Your task to perform on an android device: What's the weather today? Image 0: 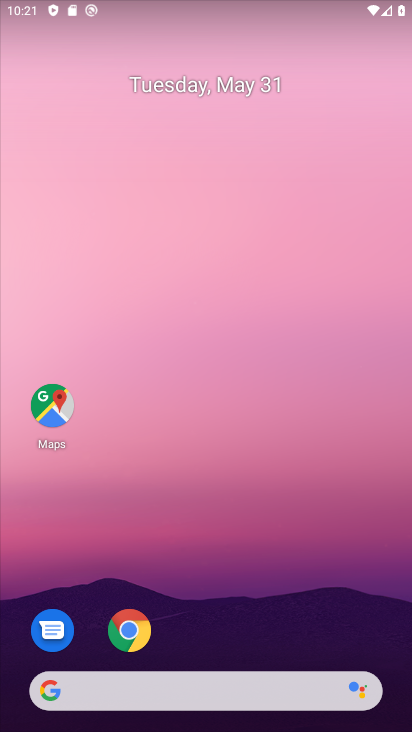
Step 0: drag from (284, 612) to (279, 130)
Your task to perform on an android device: What's the weather today? Image 1: 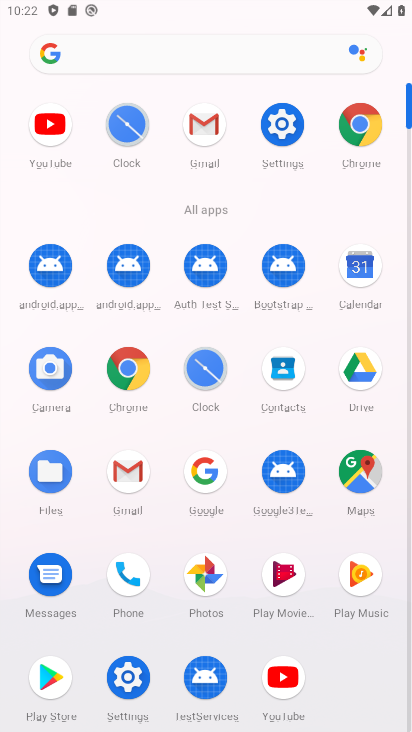
Step 1: click (124, 374)
Your task to perform on an android device: What's the weather today? Image 2: 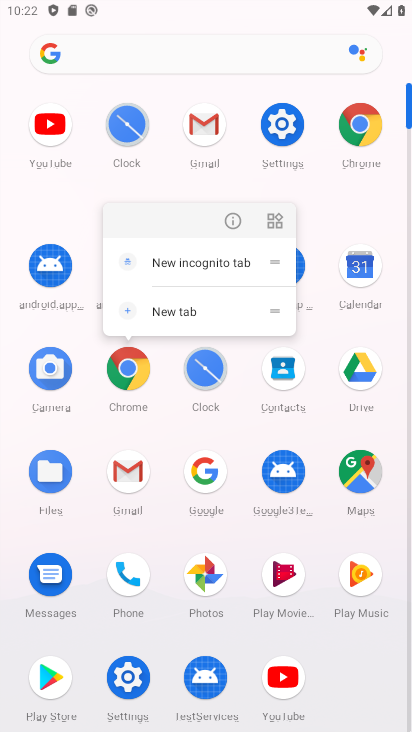
Step 2: click (130, 368)
Your task to perform on an android device: What's the weather today? Image 3: 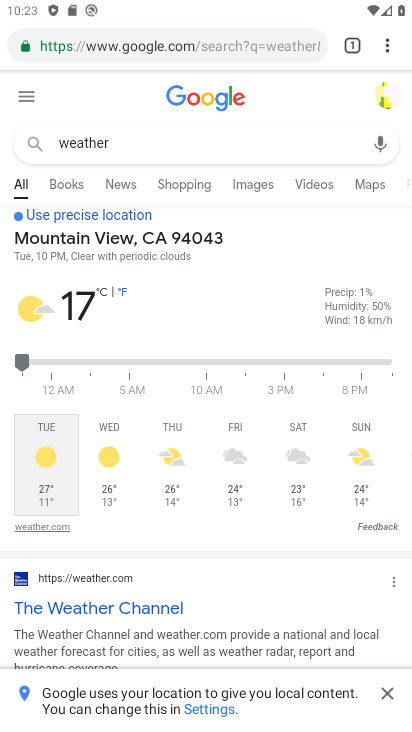
Step 3: task complete